Your task to perform on an android device: Open Chrome and go to settings Image 0: 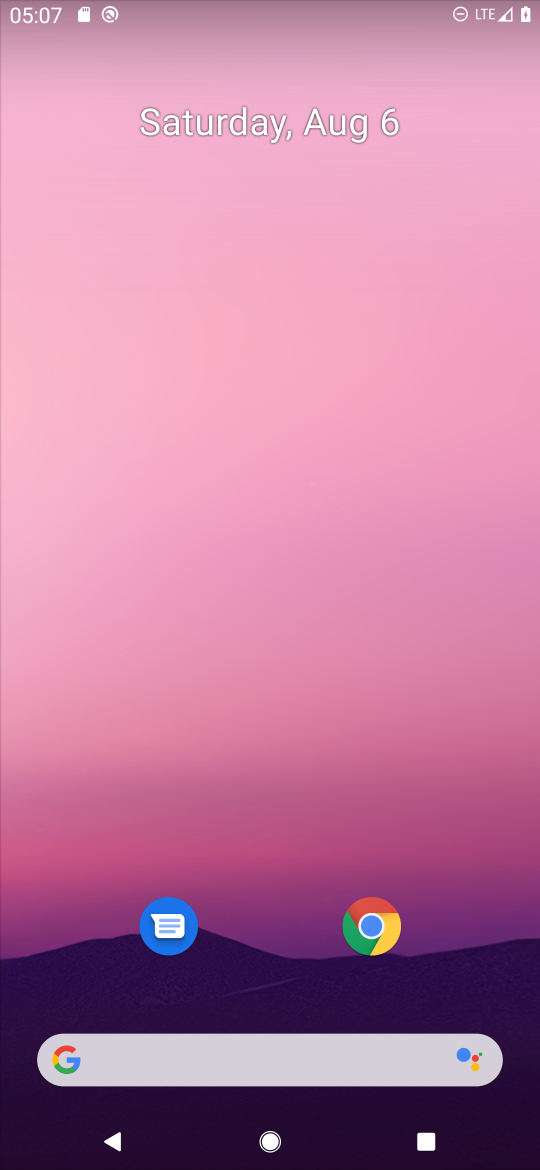
Step 0: click (373, 899)
Your task to perform on an android device: Open Chrome and go to settings Image 1: 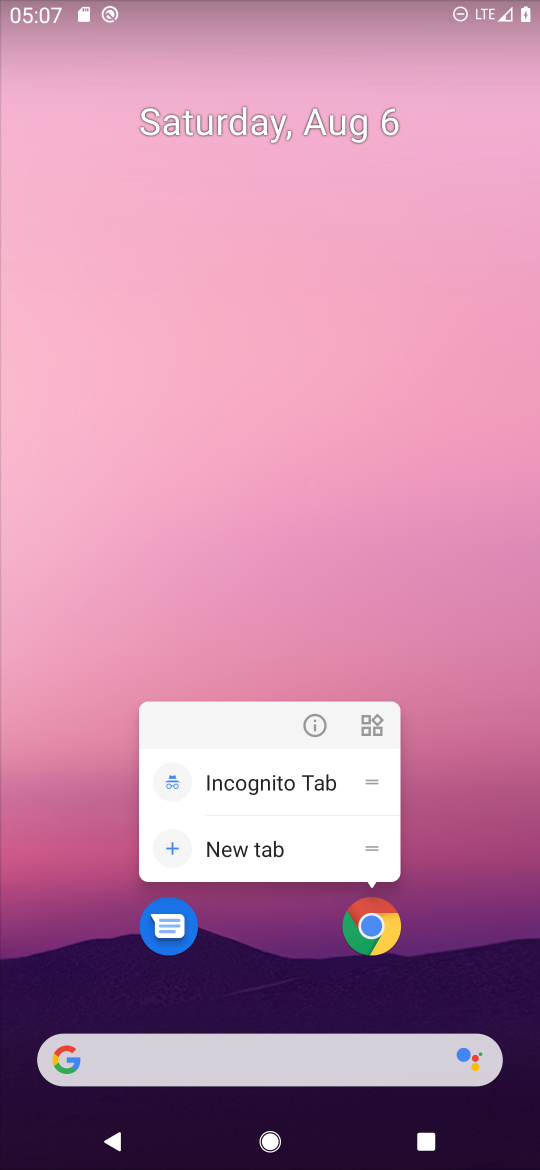
Step 1: click (373, 899)
Your task to perform on an android device: Open Chrome and go to settings Image 2: 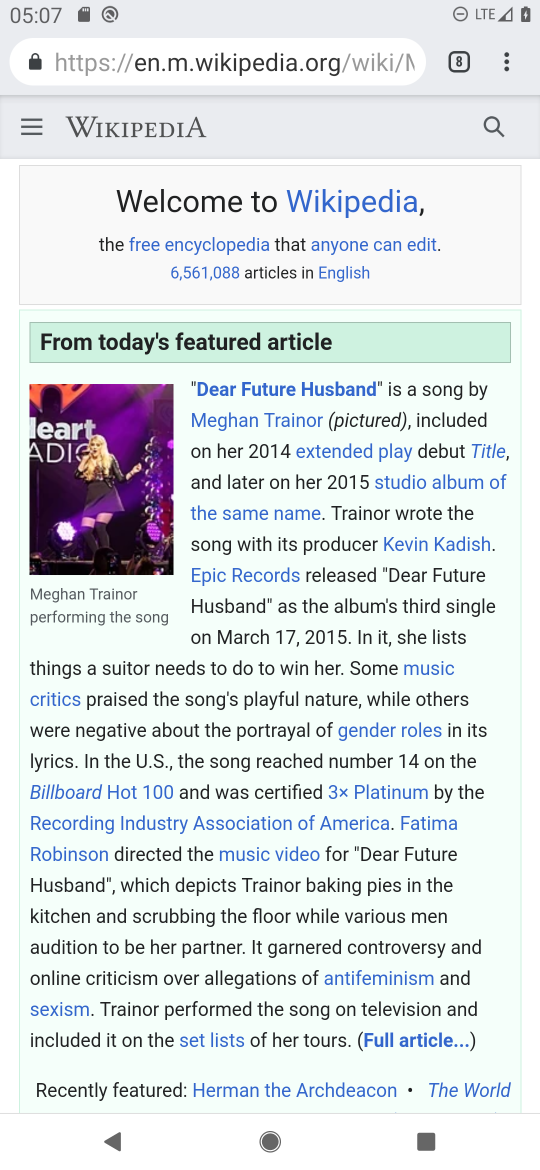
Step 2: click (501, 62)
Your task to perform on an android device: Open Chrome and go to settings Image 3: 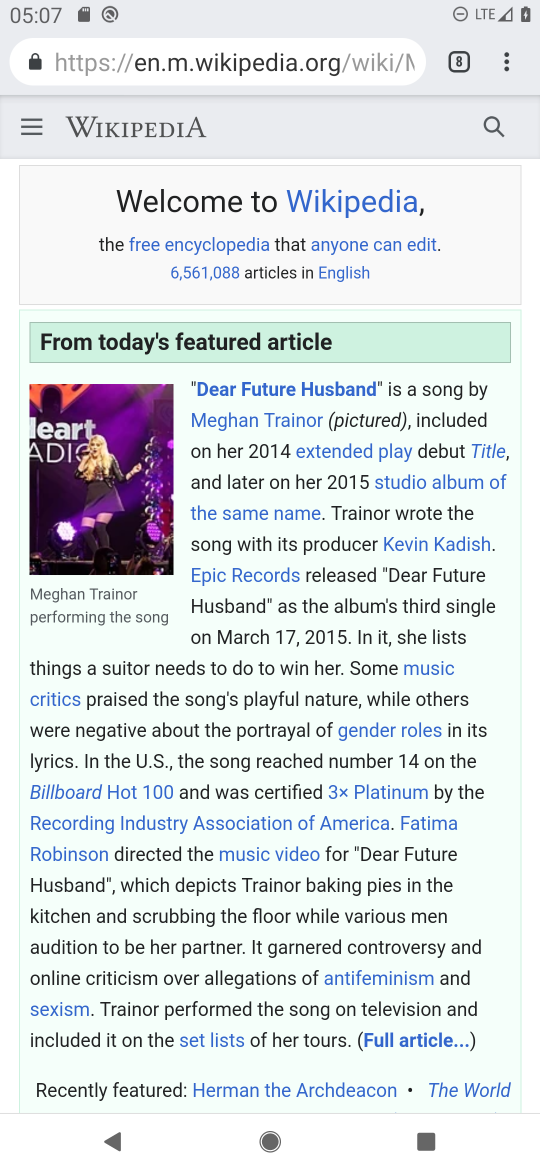
Step 3: task complete